Your task to perform on an android device: change notification settings in the gmail app Image 0: 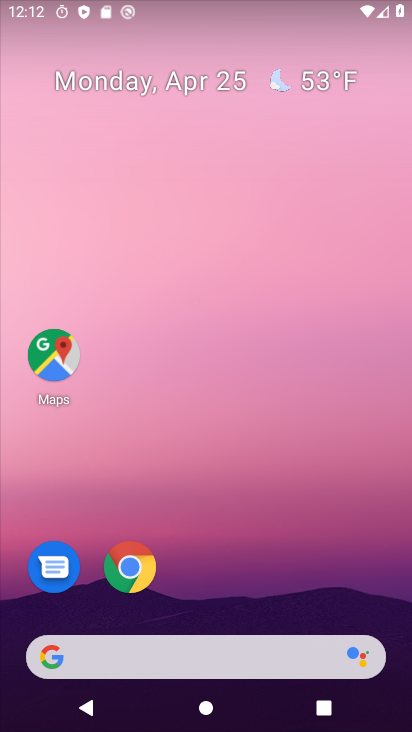
Step 0: drag from (225, 518) to (223, 87)
Your task to perform on an android device: change notification settings in the gmail app Image 1: 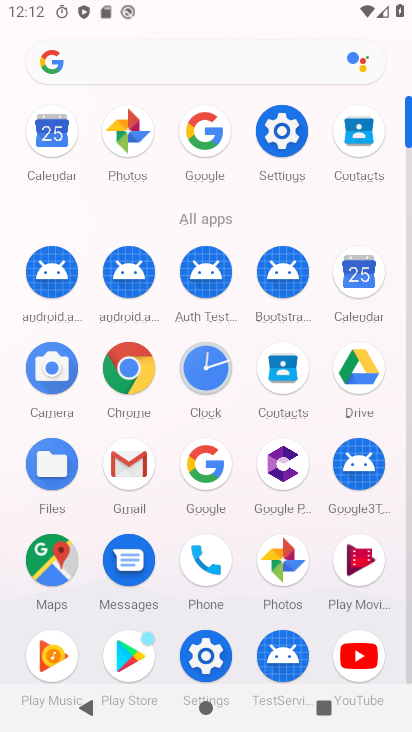
Step 1: click (137, 463)
Your task to perform on an android device: change notification settings in the gmail app Image 2: 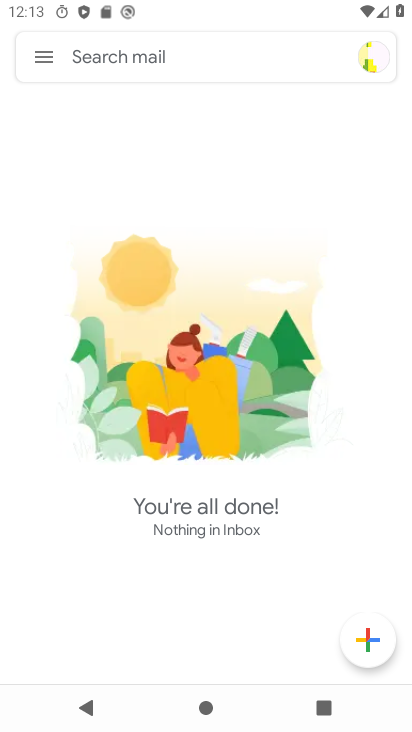
Step 2: click (40, 52)
Your task to perform on an android device: change notification settings in the gmail app Image 3: 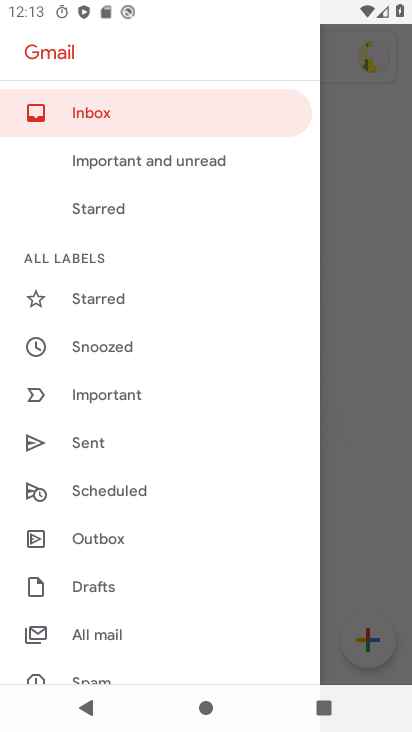
Step 3: drag from (146, 590) to (209, 174)
Your task to perform on an android device: change notification settings in the gmail app Image 4: 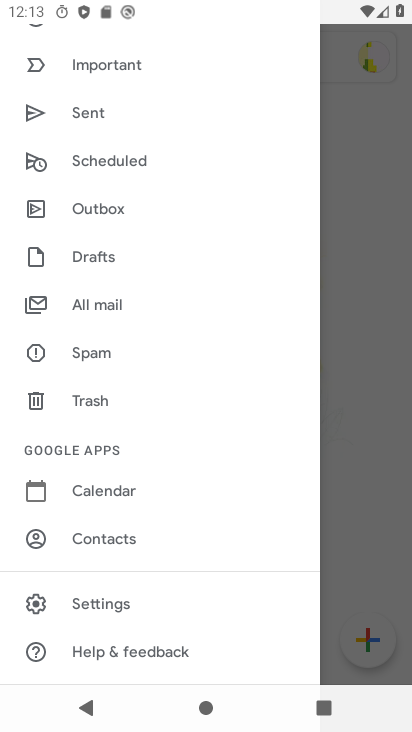
Step 4: click (115, 599)
Your task to perform on an android device: change notification settings in the gmail app Image 5: 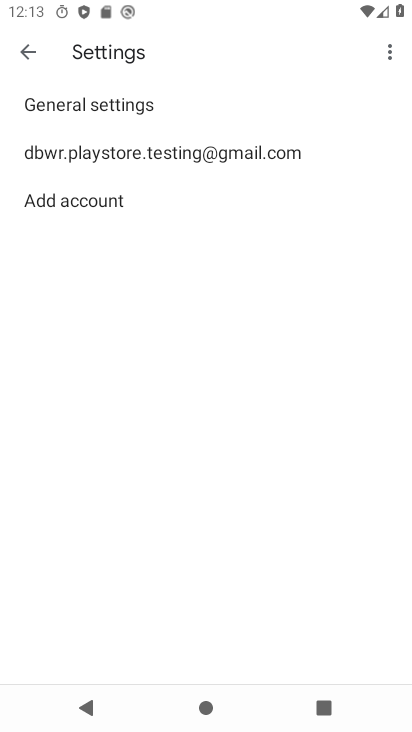
Step 5: click (140, 95)
Your task to perform on an android device: change notification settings in the gmail app Image 6: 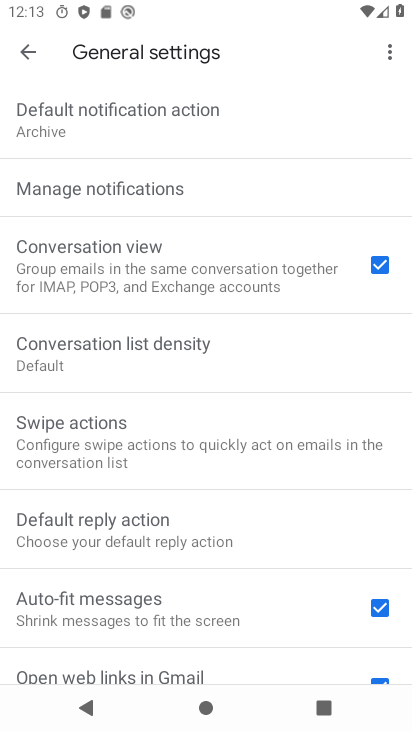
Step 6: click (158, 192)
Your task to perform on an android device: change notification settings in the gmail app Image 7: 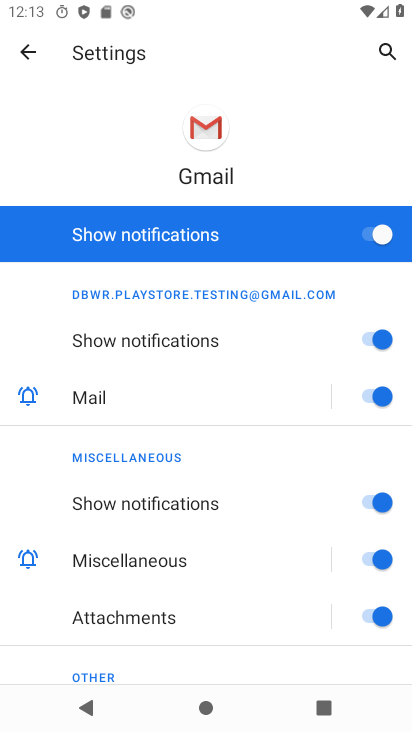
Step 7: click (363, 229)
Your task to perform on an android device: change notification settings in the gmail app Image 8: 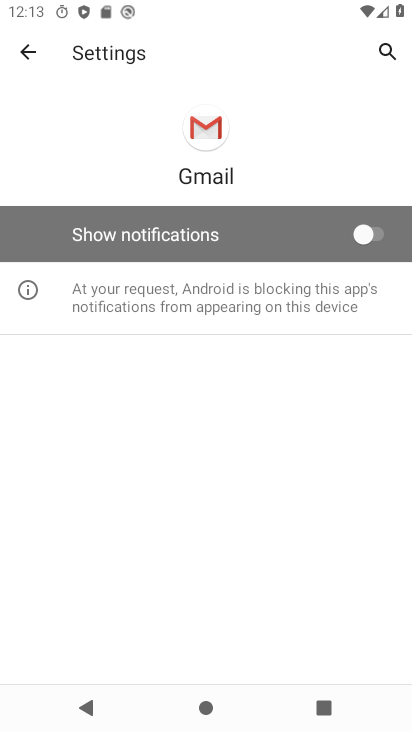
Step 8: task complete